Your task to perform on an android device: Open Google Maps Image 0: 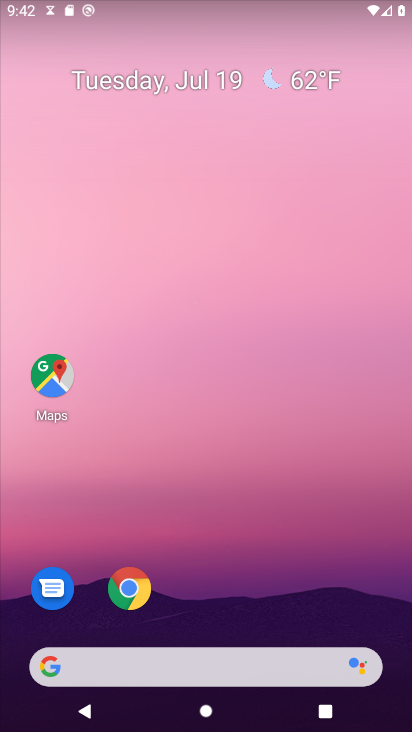
Step 0: click (38, 379)
Your task to perform on an android device: Open Google Maps Image 1: 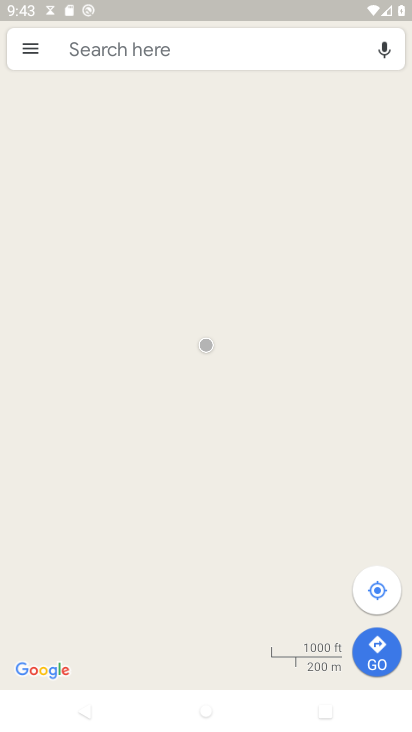
Step 1: task complete